Your task to perform on an android device: Go to Wikipedia Image 0: 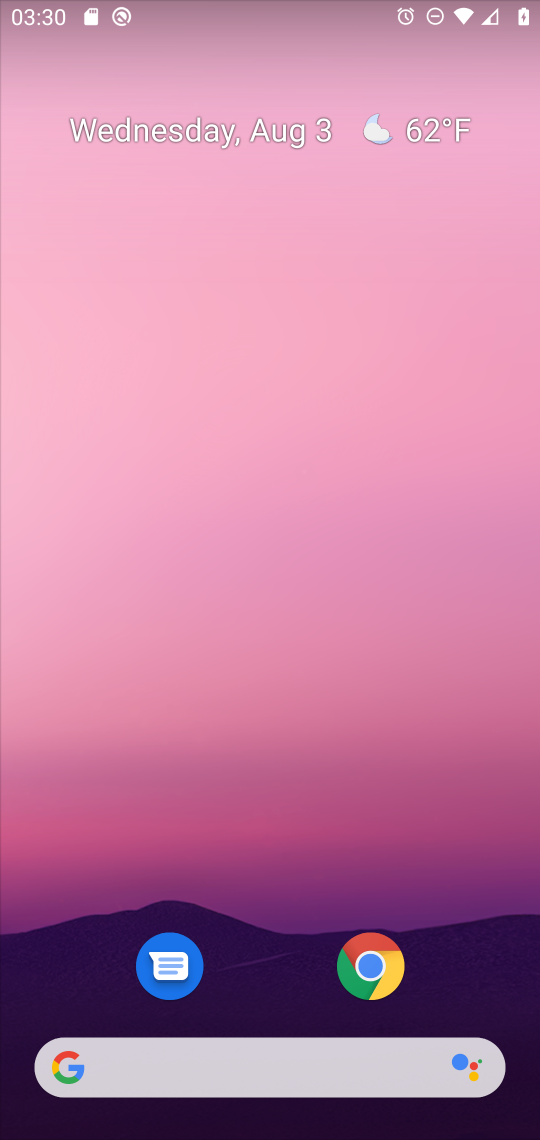
Step 0: click (355, 976)
Your task to perform on an android device: Go to Wikipedia Image 1: 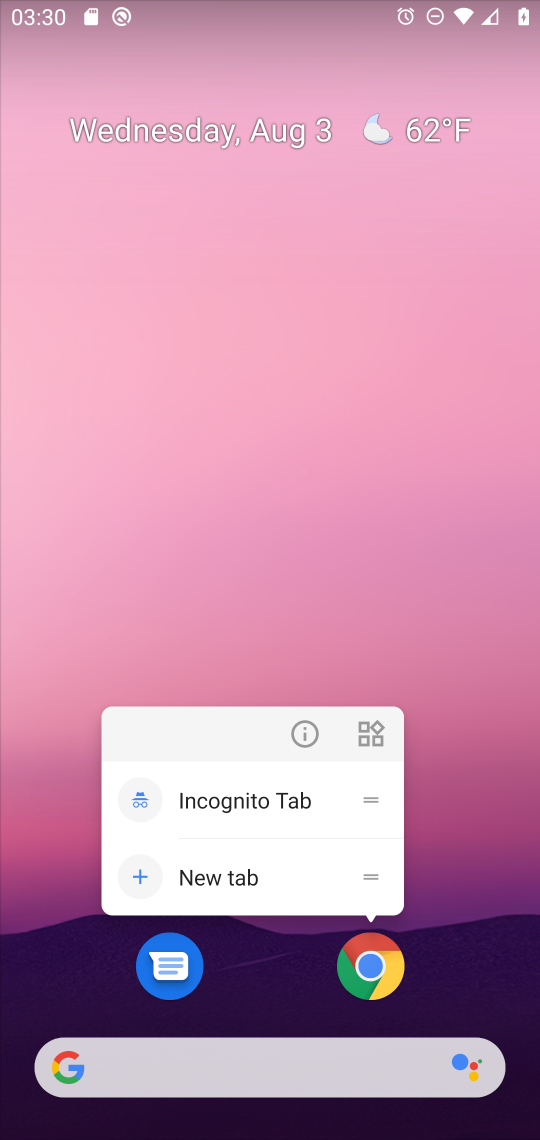
Step 1: click (358, 961)
Your task to perform on an android device: Go to Wikipedia Image 2: 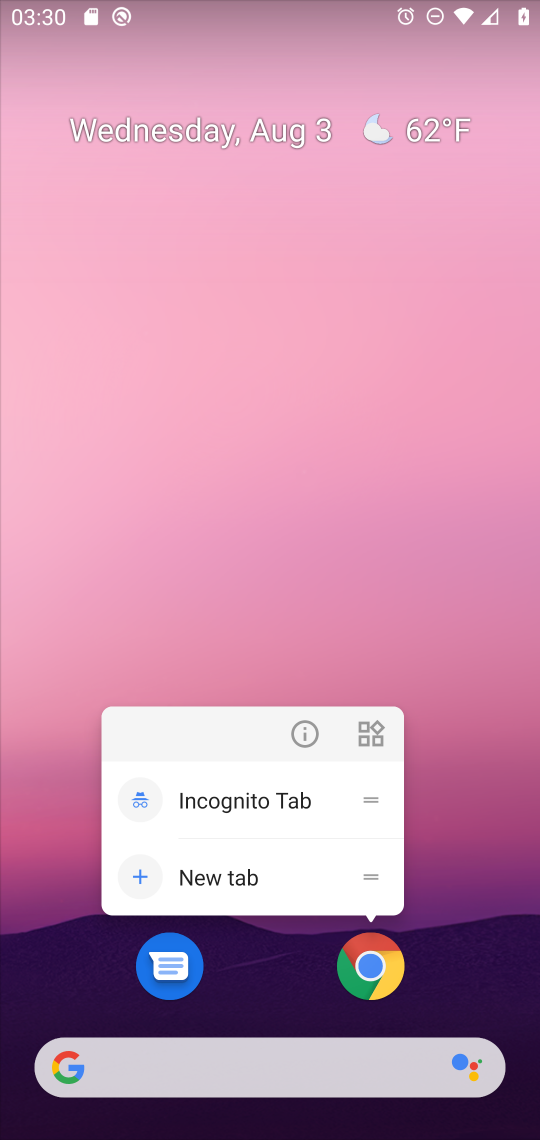
Step 2: click (369, 980)
Your task to perform on an android device: Go to Wikipedia Image 3: 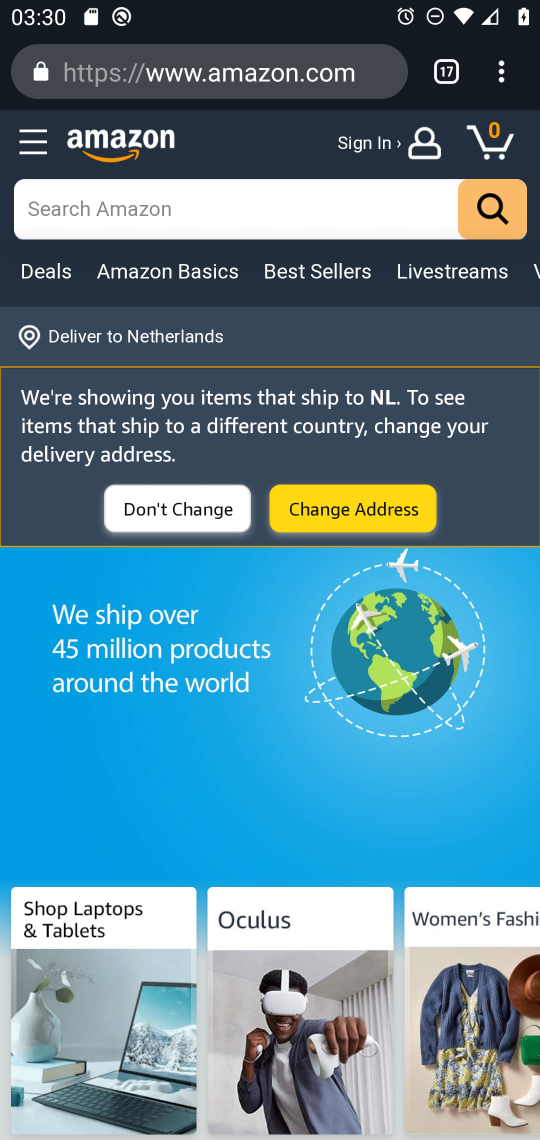
Step 3: click (440, 73)
Your task to perform on an android device: Go to Wikipedia Image 4: 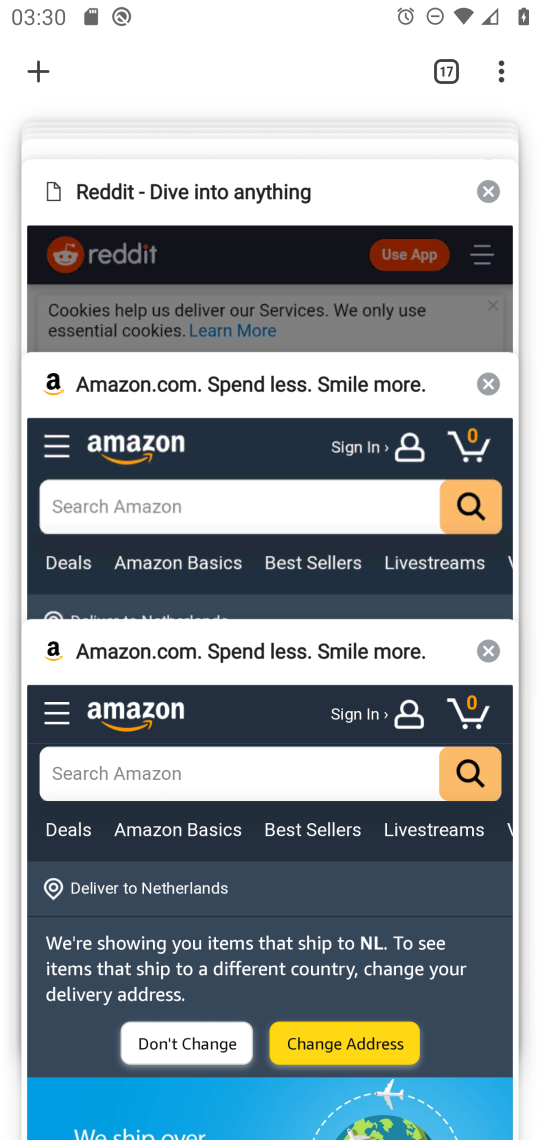
Step 4: click (51, 60)
Your task to perform on an android device: Go to Wikipedia Image 5: 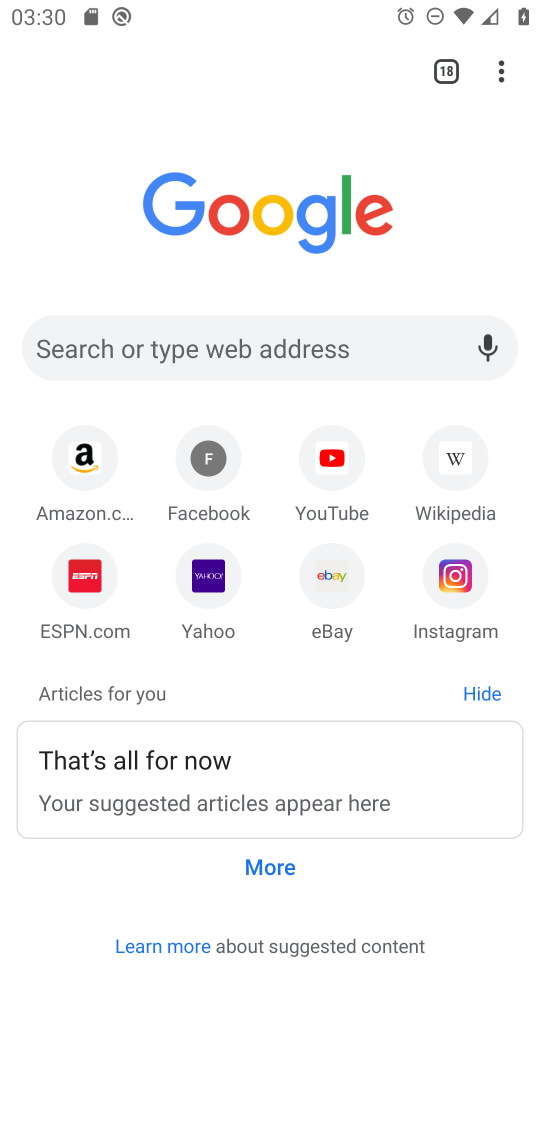
Step 5: click (442, 474)
Your task to perform on an android device: Go to Wikipedia Image 6: 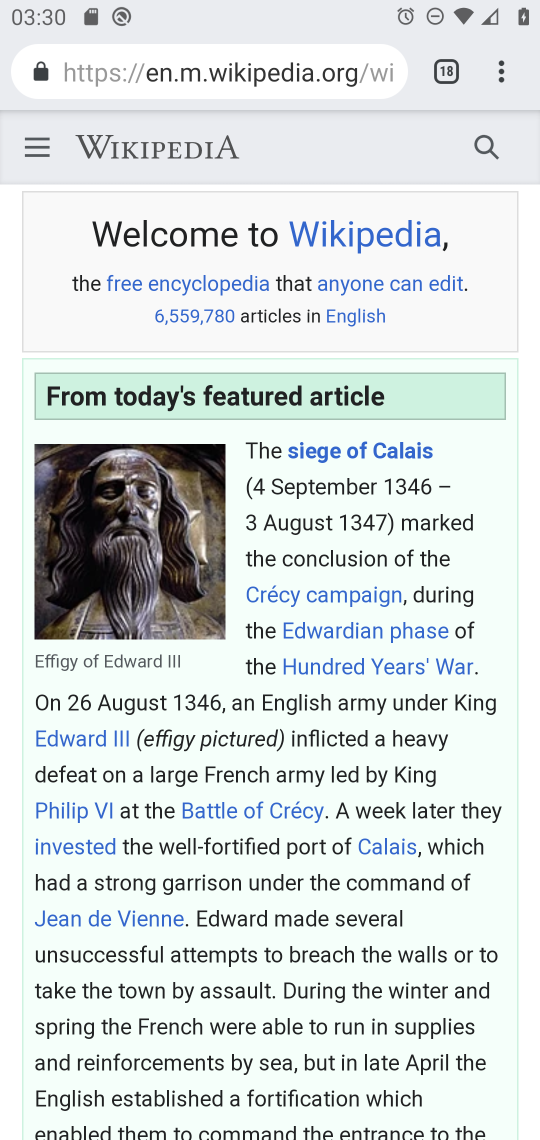
Step 6: task complete